Your task to perform on an android device: Open Google Maps and go to "Timeline" Image 0: 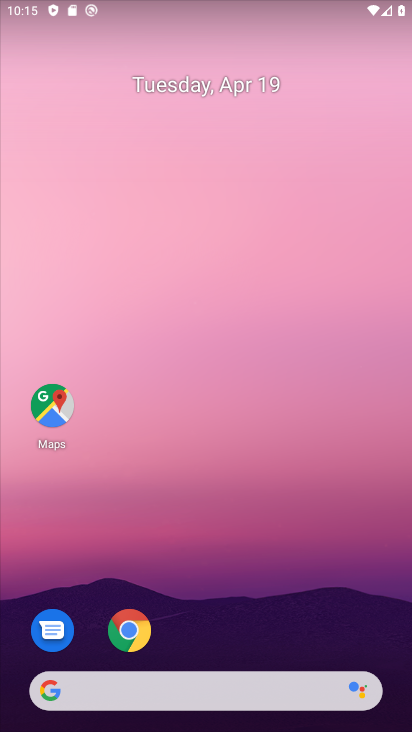
Step 0: drag from (297, 557) to (308, 230)
Your task to perform on an android device: Open Google Maps and go to "Timeline" Image 1: 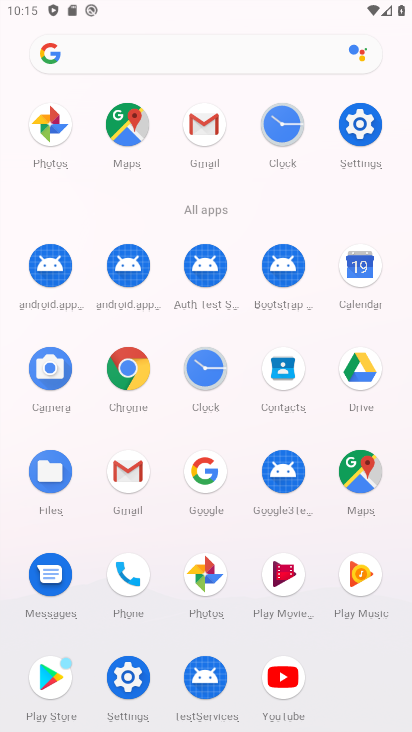
Step 1: click (359, 474)
Your task to perform on an android device: Open Google Maps and go to "Timeline" Image 2: 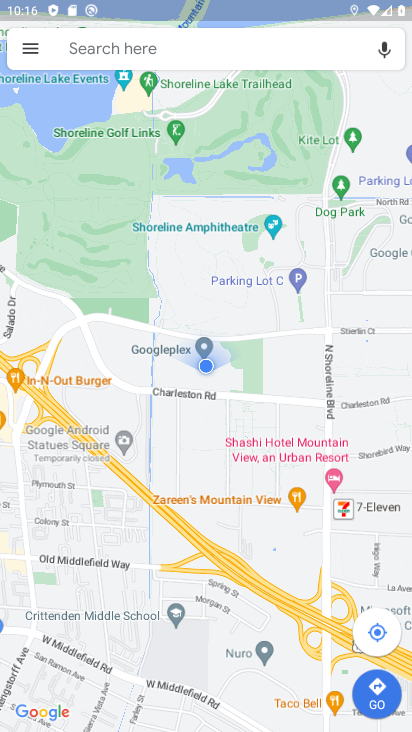
Step 2: click (25, 52)
Your task to perform on an android device: Open Google Maps and go to "Timeline" Image 3: 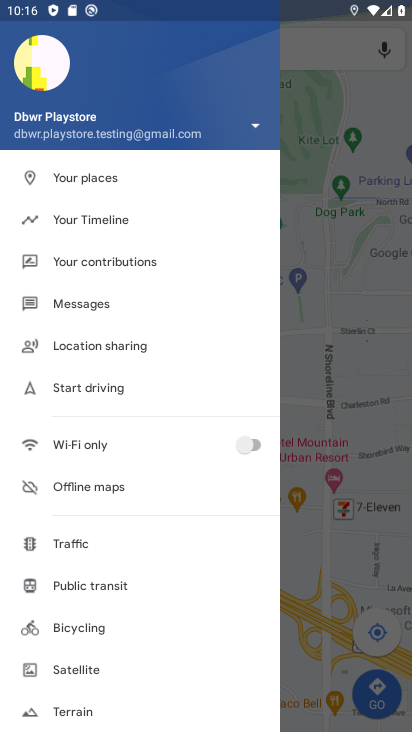
Step 3: click (120, 221)
Your task to perform on an android device: Open Google Maps and go to "Timeline" Image 4: 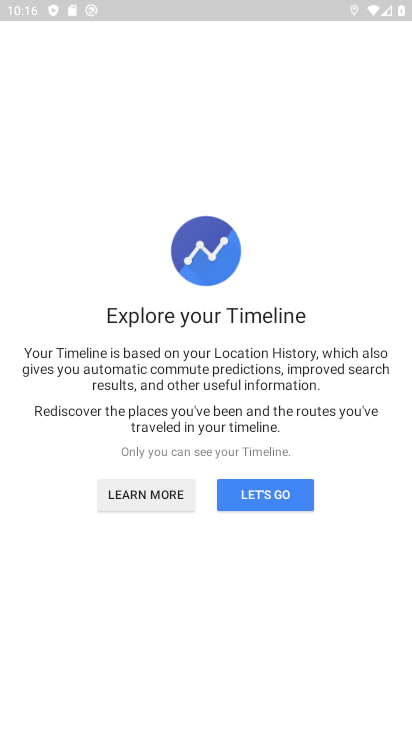
Step 4: click (259, 486)
Your task to perform on an android device: Open Google Maps and go to "Timeline" Image 5: 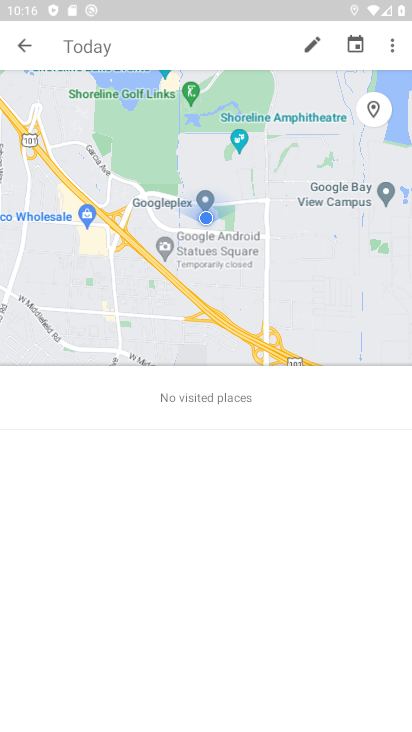
Step 5: task complete